Your task to perform on an android device: change the clock display to show seconds Image 0: 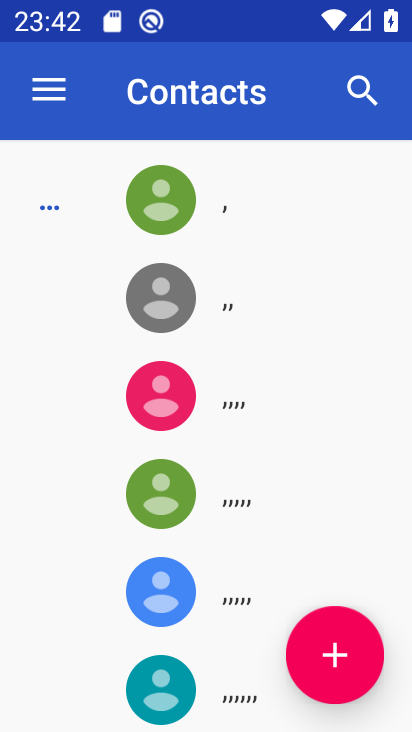
Step 0: press home button
Your task to perform on an android device: change the clock display to show seconds Image 1: 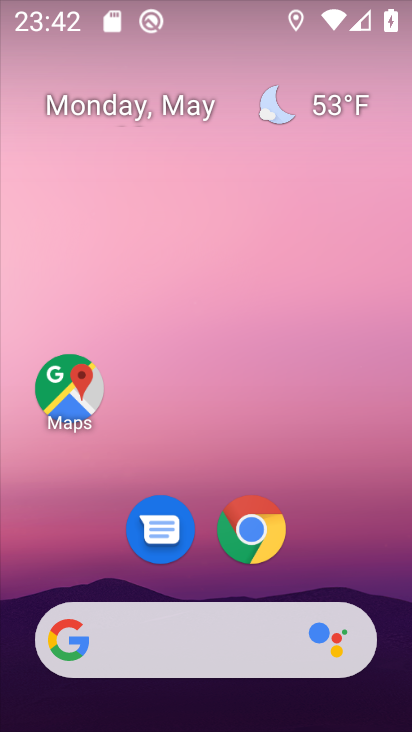
Step 1: drag from (311, 503) to (216, 180)
Your task to perform on an android device: change the clock display to show seconds Image 2: 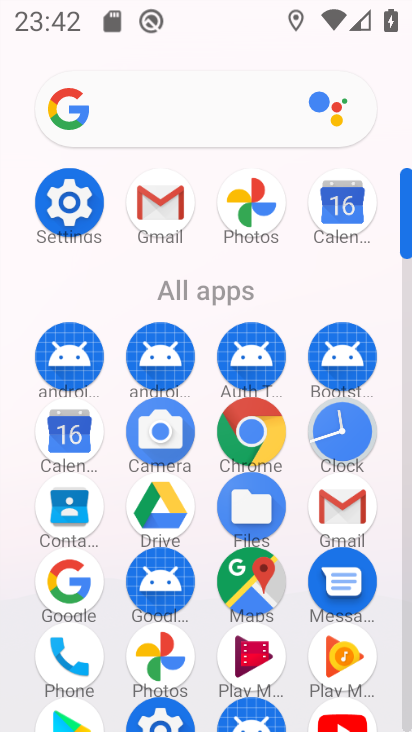
Step 2: click (335, 417)
Your task to perform on an android device: change the clock display to show seconds Image 3: 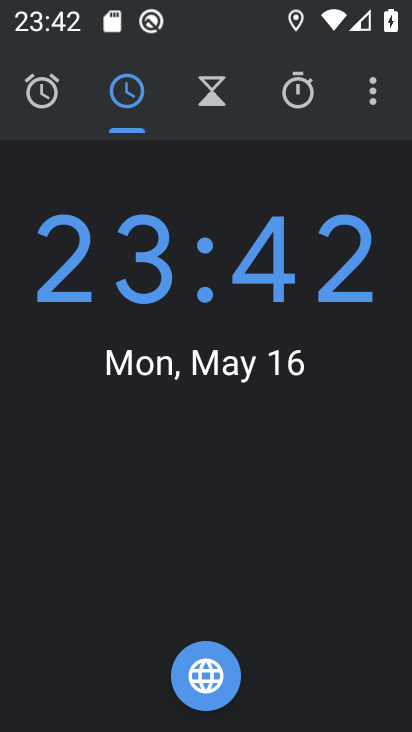
Step 3: click (375, 103)
Your task to perform on an android device: change the clock display to show seconds Image 4: 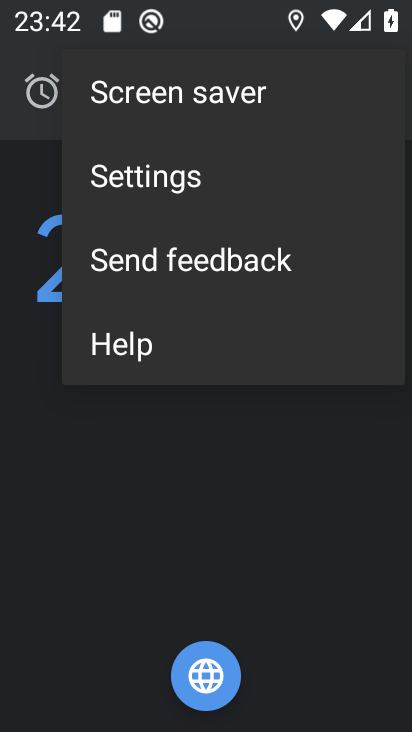
Step 4: click (167, 167)
Your task to perform on an android device: change the clock display to show seconds Image 5: 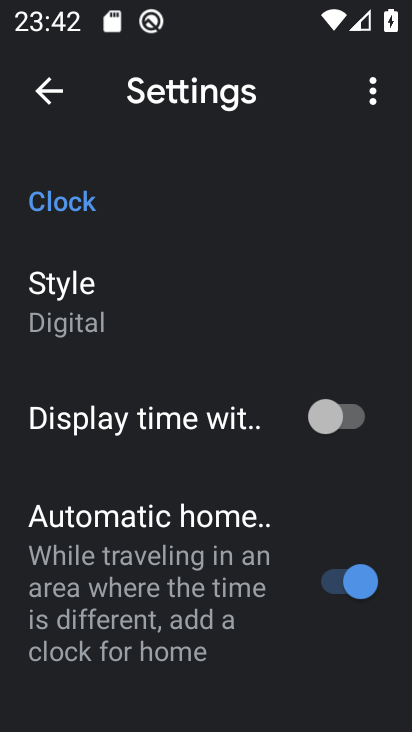
Step 5: click (358, 418)
Your task to perform on an android device: change the clock display to show seconds Image 6: 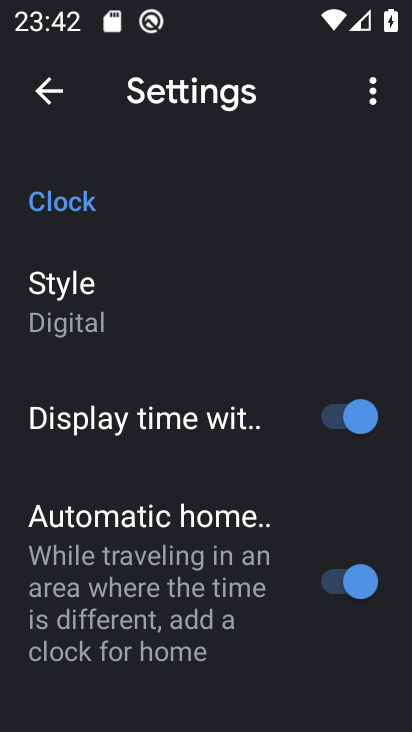
Step 6: task complete